Your task to perform on an android device: Search for seafood restaurants on Google Maps Image 0: 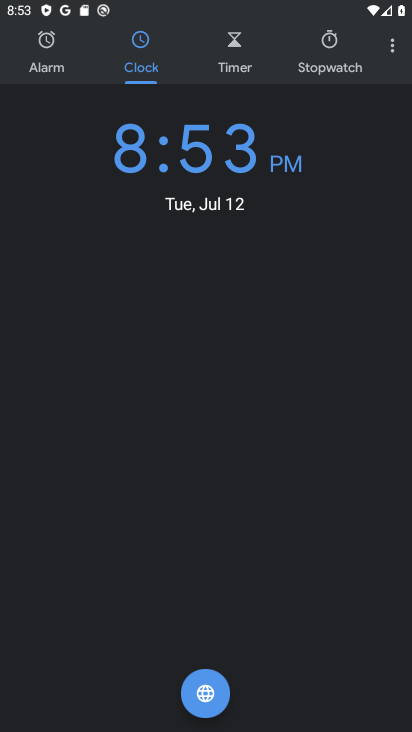
Step 0: press home button
Your task to perform on an android device: Search for seafood restaurants on Google Maps Image 1: 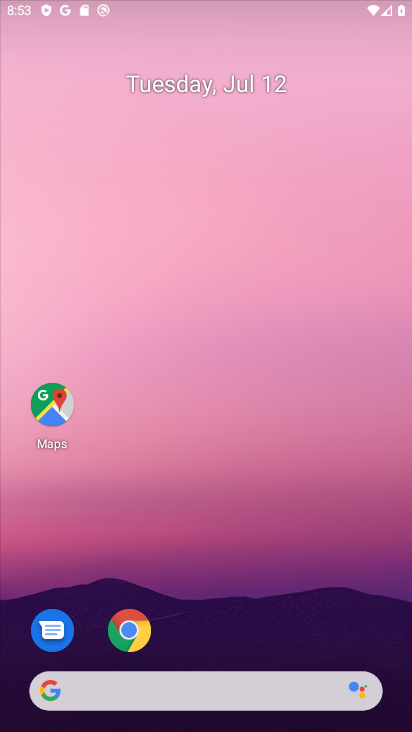
Step 1: drag from (231, 657) to (221, 272)
Your task to perform on an android device: Search for seafood restaurants on Google Maps Image 2: 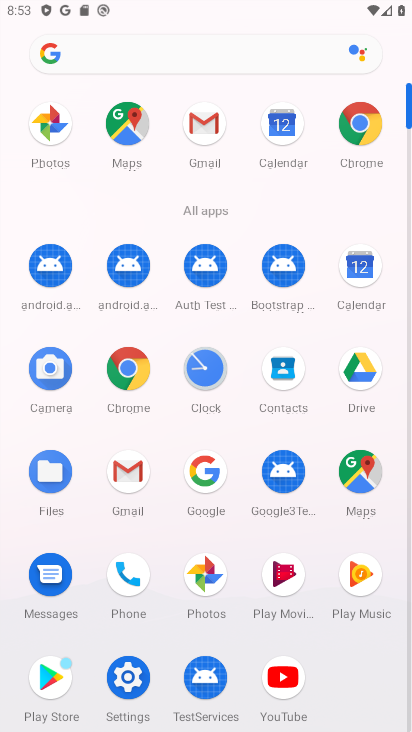
Step 2: click (127, 124)
Your task to perform on an android device: Search for seafood restaurants on Google Maps Image 3: 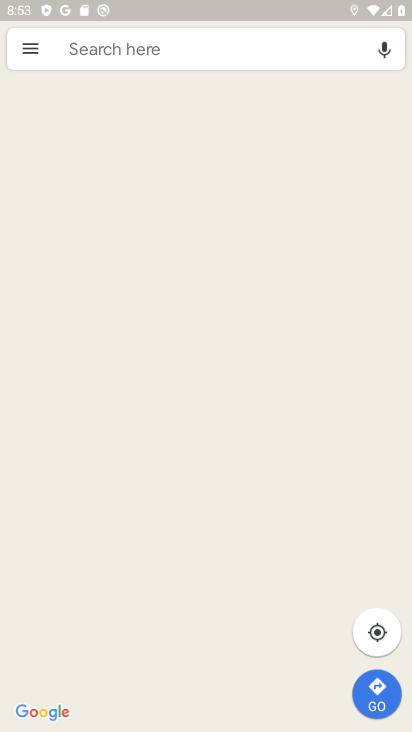
Step 3: click (175, 55)
Your task to perform on an android device: Search for seafood restaurants on Google Maps Image 4: 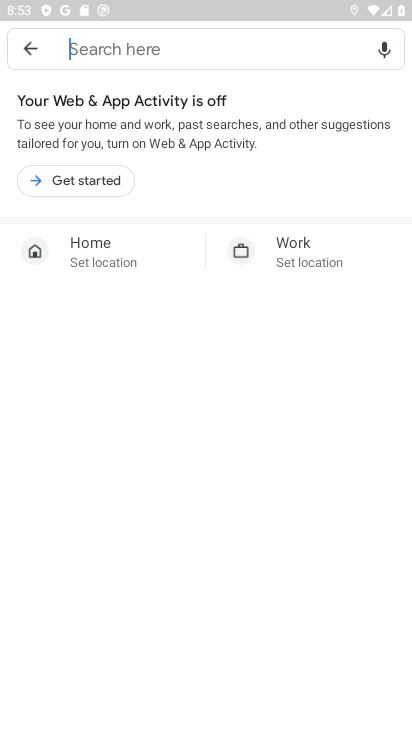
Step 4: click (98, 185)
Your task to perform on an android device: Search for seafood restaurants on Google Maps Image 5: 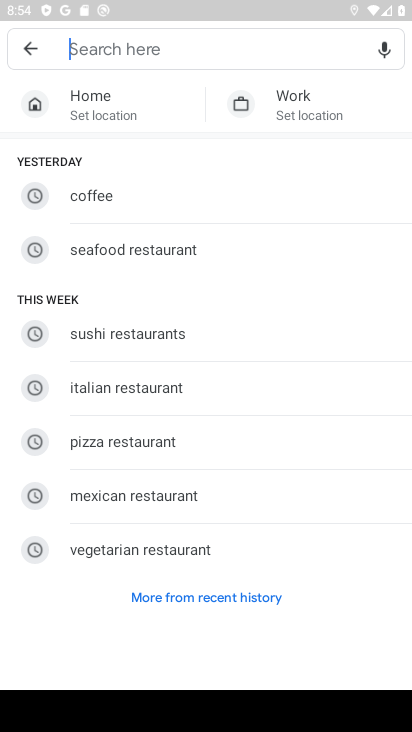
Step 5: click (157, 251)
Your task to perform on an android device: Search for seafood restaurants on Google Maps Image 6: 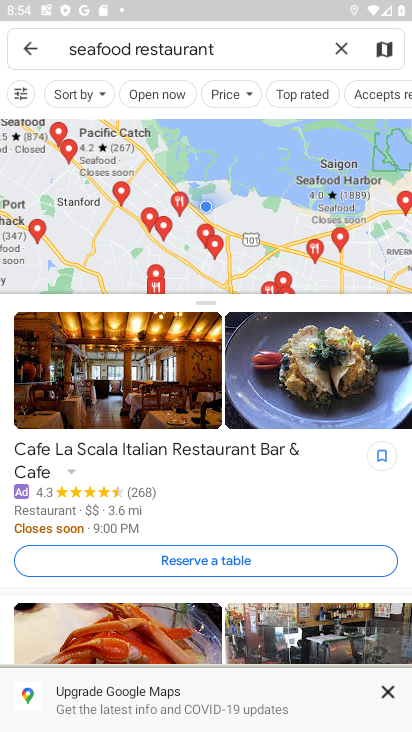
Step 6: task complete